Your task to perform on an android device: Open my contact list Image 0: 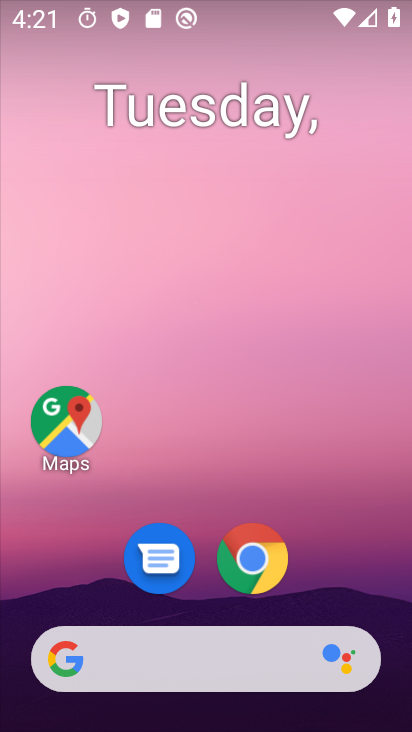
Step 0: drag from (169, 729) to (131, 87)
Your task to perform on an android device: Open my contact list Image 1: 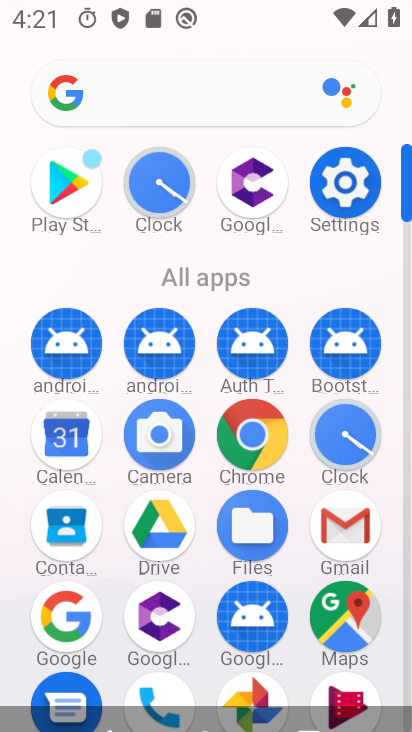
Step 1: click (72, 547)
Your task to perform on an android device: Open my contact list Image 2: 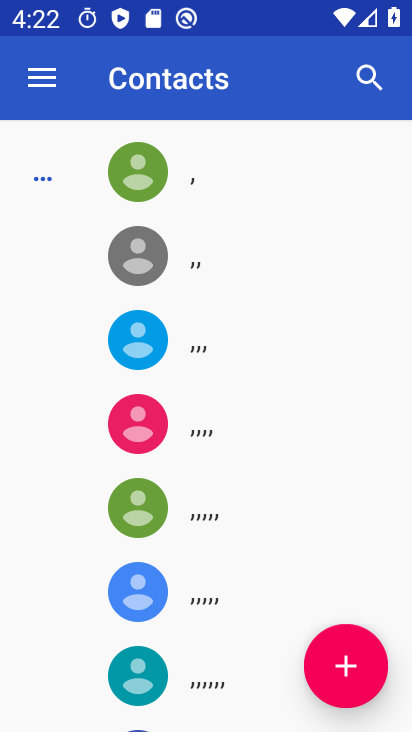
Step 2: task complete